Your task to perform on an android device: open app "HBO Max: Stream TV & Movies" (install if not already installed) and enter user name: "faring@outlook.com" and password: "appropriately" Image 0: 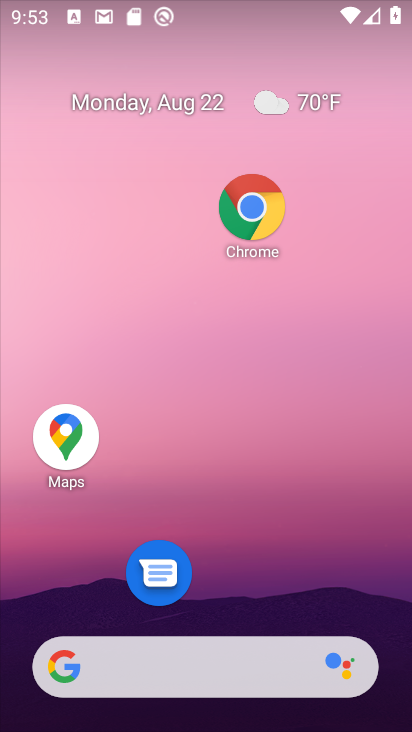
Step 0: drag from (226, 616) to (168, 11)
Your task to perform on an android device: open app "HBO Max: Stream TV & Movies" (install if not already installed) and enter user name: "faring@outlook.com" and password: "appropriately" Image 1: 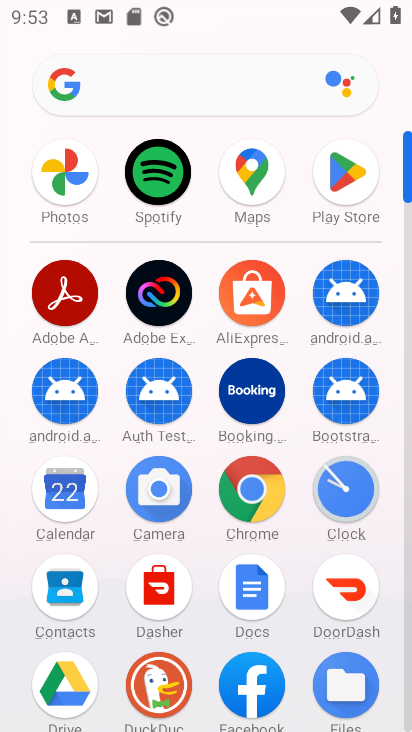
Step 1: click (344, 178)
Your task to perform on an android device: open app "HBO Max: Stream TV & Movies" (install if not already installed) and enter user name: "faring@outlook.com" and password: "appropriately" Image 2: 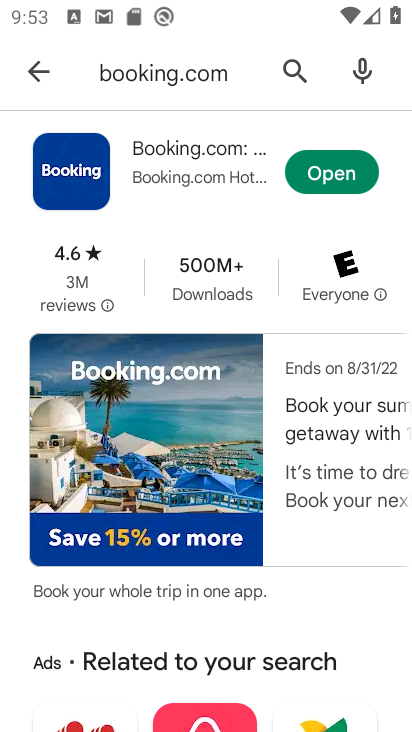
Step 2: click (138, 81)
Your task to perform on an android device: open app "HBO Max: Stream TV & Movies" (install if not already installed) and enter user name: "faring@outlook.com" and password: "appropriately" Image 3: 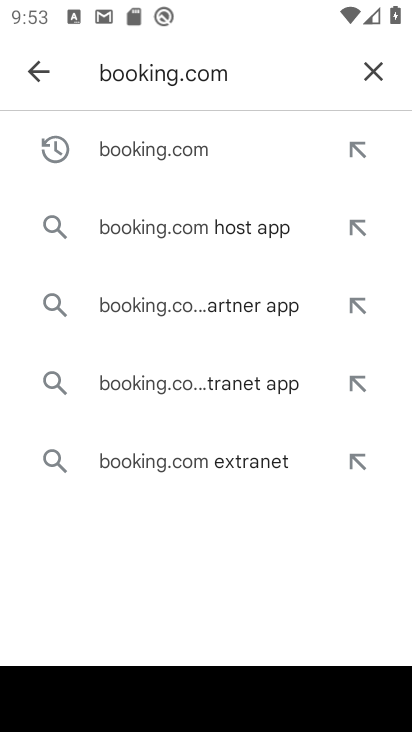
Step 3: click (372, 75)
Your task to perform on an android device: open app "HBO Max: Stream TV & Movies" (install if not already installed) and enter user name: "faring@outlook.com" and password: "appropriately" Image 4: 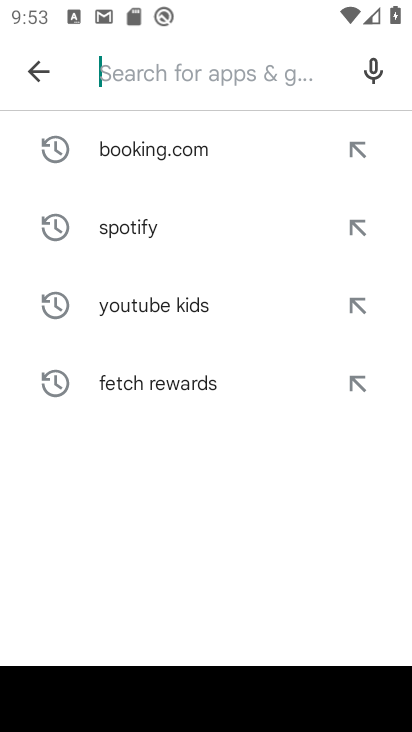
Step 4: type "HBO Max"
Your task to perform on an android device: open app "HBO Max: Stream TV & Movies" (install if not already installed) and enter user name: "faring@outlook.com" and password: "appropriately" Image 5: 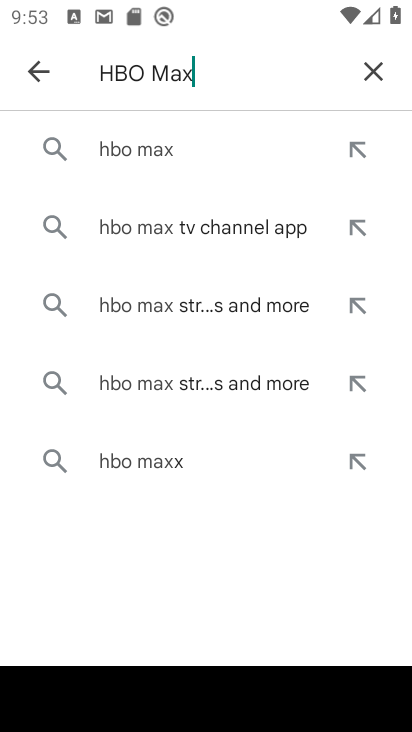
Step 5: click (139, 149)
Your task to perform on an android device: open app "HBO Max: Stream TV & Movies" (install if not already installed) and enter user name: "faring@outlook.com" and password: "appropriately" Image 6: 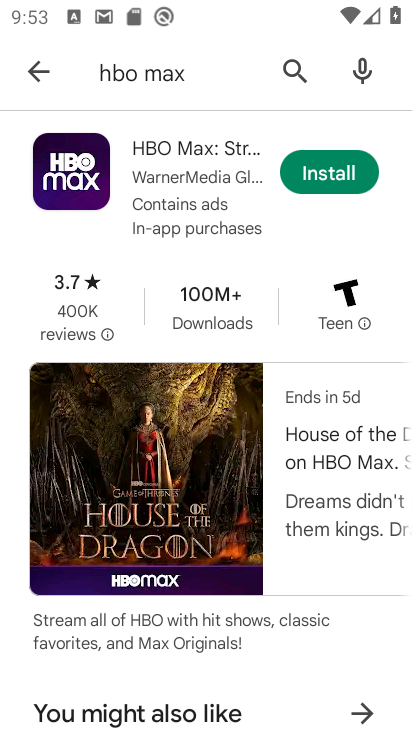
Step 6: click (326, 173)
Your task to perform on an android device: open app "HBO Max: Stream TV & Movies" (install if not already installed) and enter user name: "faring@outlook.com" and password: "appropriately" Image 7: 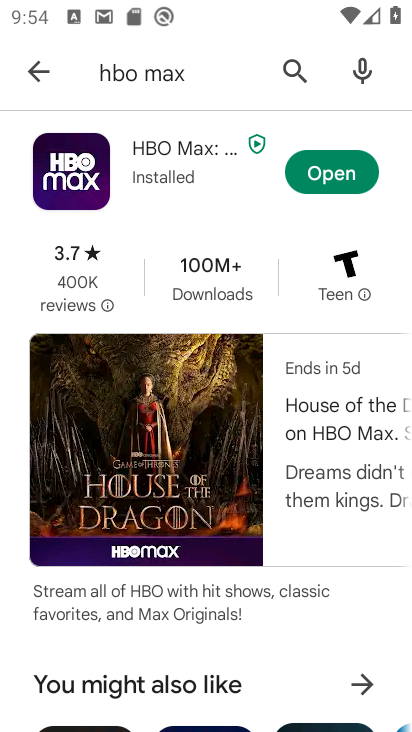
Step 7: click (339, 185)
Your task to perform on an android device: open app "HBO Max: Stream TV & Movies" (install if not already installed) and enter user name: "faring@outlook.com" and password: "appropriately" Image 8: 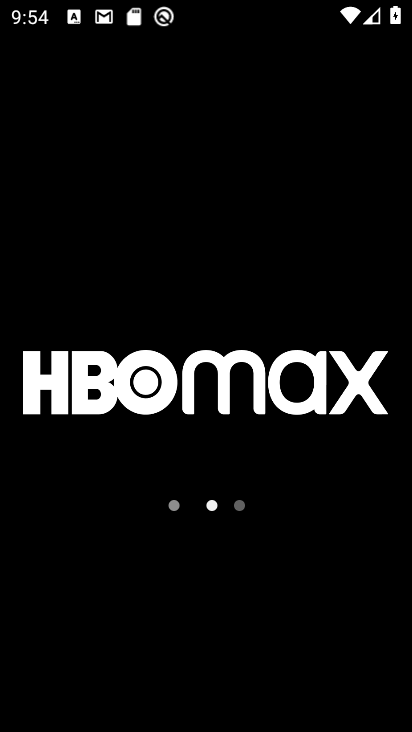
Step 8: click (333, 176)
Your task to perform on an android device: open app "HBO Max: Stream TV & Movies" (install if not already installed) and enter user name: "faring@outlook.com" and password: "appropriately" Image 9: 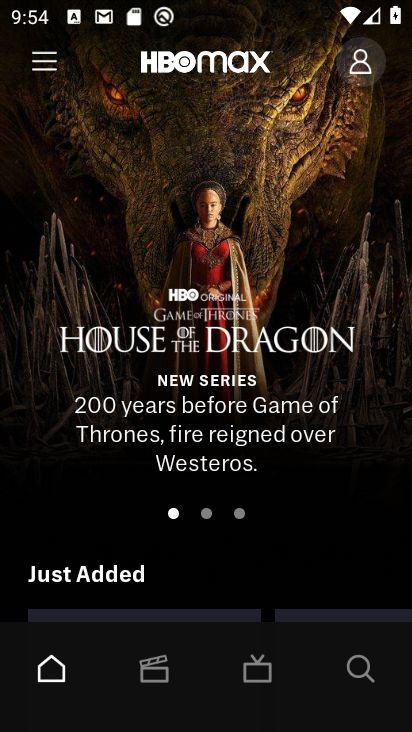
Step 9: click (362, 73)
Your task to perform on an android device: open app "HBO Max: Stream TV & Movies" (install if not already installed) and enter user name: "faring@outlook.com" and password: "appropriately" Image 10: 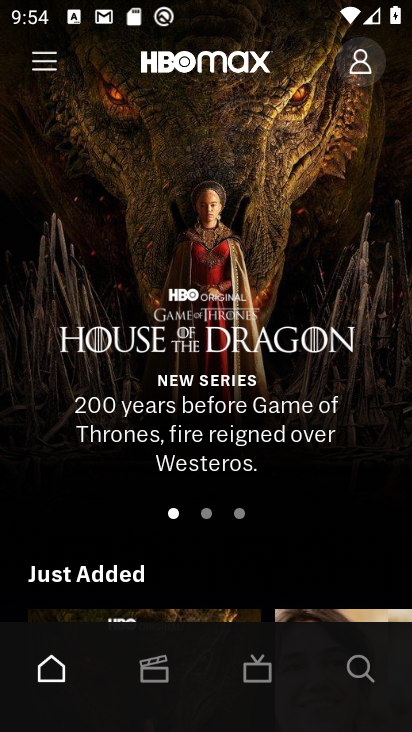
Step 10: click (363, 88)
Your task to perform on an android device: open app "HBO Max: Stream TV & Movies" (install if not already installed) and enter user name: "faring@outlook.com" and password: "appropriately" Image 11: 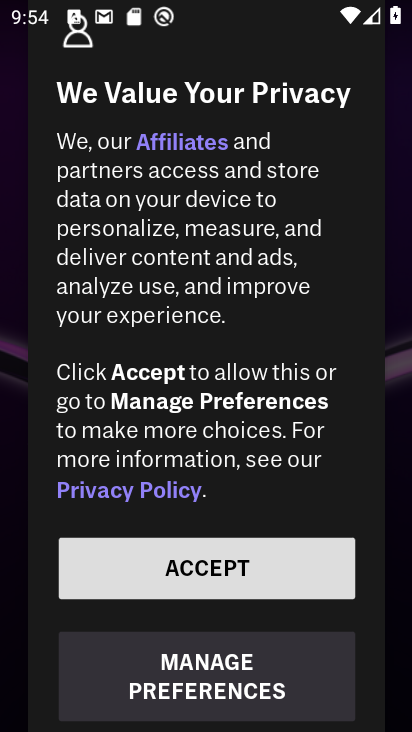
Step 11: click (205, 562)
Your task to perform on an android device: open app "HBO Max: Stream TV & Movies" (install if not already installed) and enter user name: "faring@outlook.com" and password: "appropriately" Image 12: 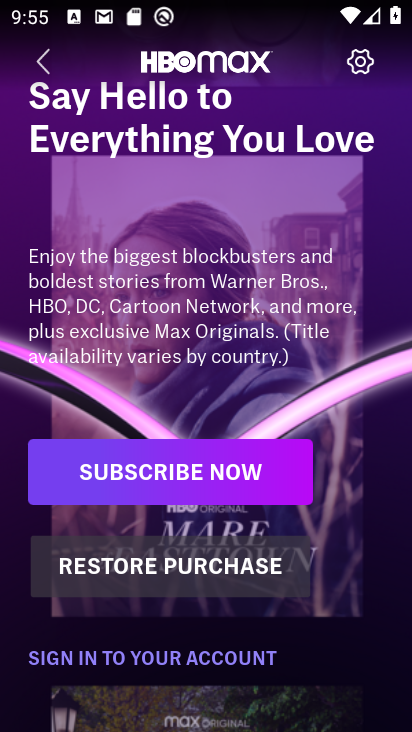
Step 12: drag from (187, 624) to (206, 498)
Your task to perform on an android device: open app "HBO Max: Stream TV & Movies" (install if not already installed) and enter user name: "faring@outlook.com" and password: "appropriately" Image 13: 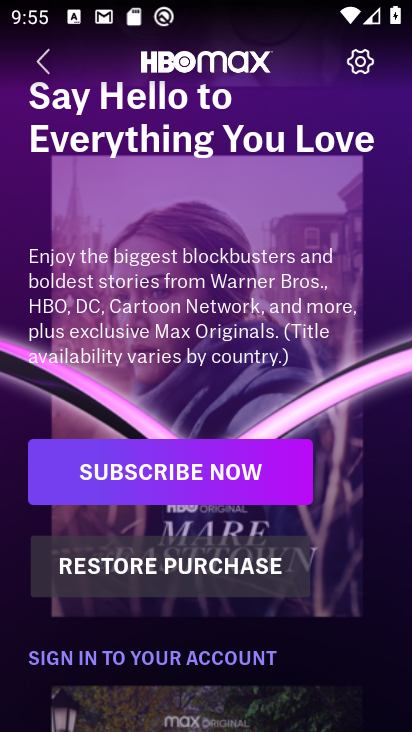
Step 13: click (145, 650)
Your task to perform on an android device: open app "HBO Max: Stream TV & Movies" (install if not already installed) and enter user name: "faring@outlook.com" and password: "appropriately" Image 14: 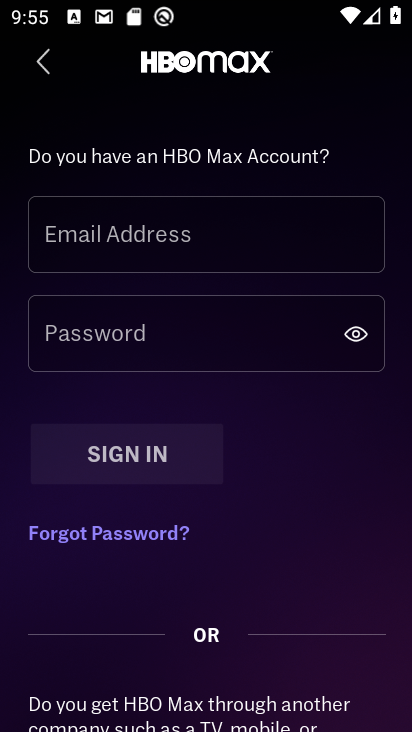
Step 14: click (182, 243)
Your task to perform on an android device: open app "HBO Max: Stream TV & Movies" (install if not already installed) and enter user name: "faring@outlook.com" and password: "appropriately" Image 15: 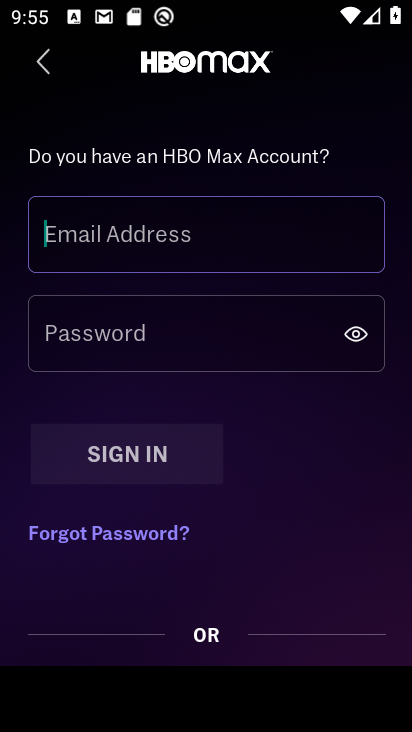
Step 15: type "faring@outlook.com"
Your task to perform on an android device: open app "HBO Max: Stream TV & Movies" (install if not already installed) and enter user name: "faring@outlook.com" and password: "appropriately" Image 16: 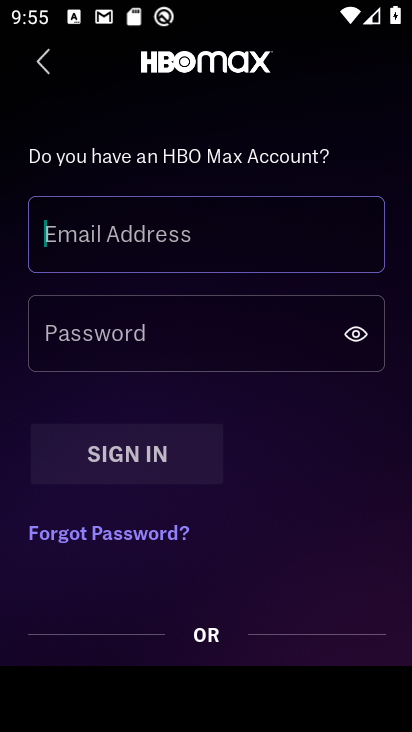
Step 16: click (181, 347)
Your task to perform on an android device: open app "HBO Max: Stream TV & Movies" (install if not already installed) and enter user name: "faring@outlook.com" and password: "appropriately" Image 17: 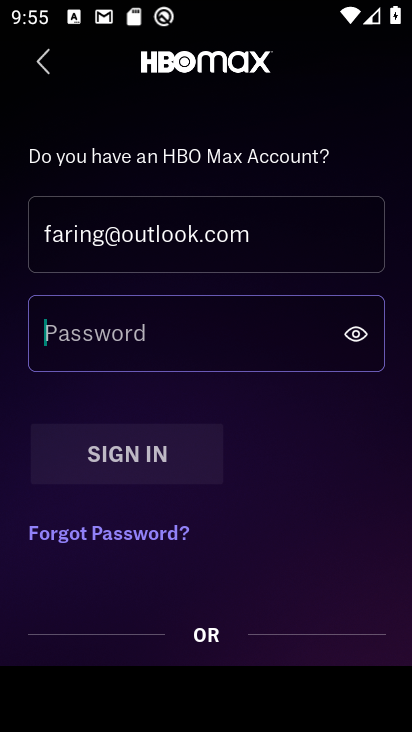
Step 17: type "appropriately"
Your task to perform on an android device: open app "HBO Max: Stream TV & Movies" (install if not already installed) and enter user name: "faring@outlook.com" and password: "appropriately" Image 18: 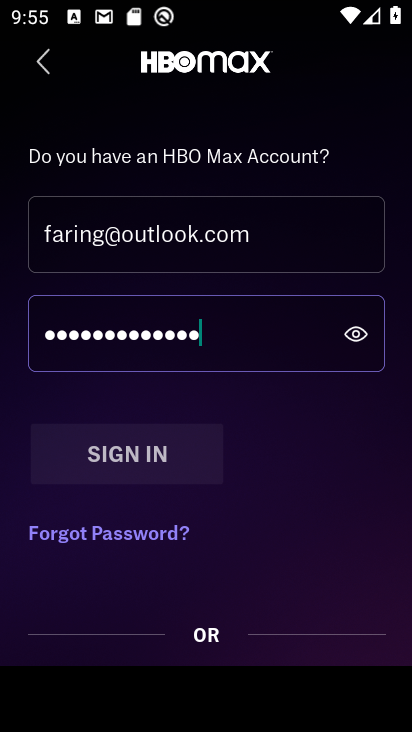
Step 18: click (138, 450)
Your task to perform on an android device: open app "HBO Max: Stream TV & Movies" (install if not already installed) and enter user name: "faring@outlook.com" and password: "appropriately" Image 19: 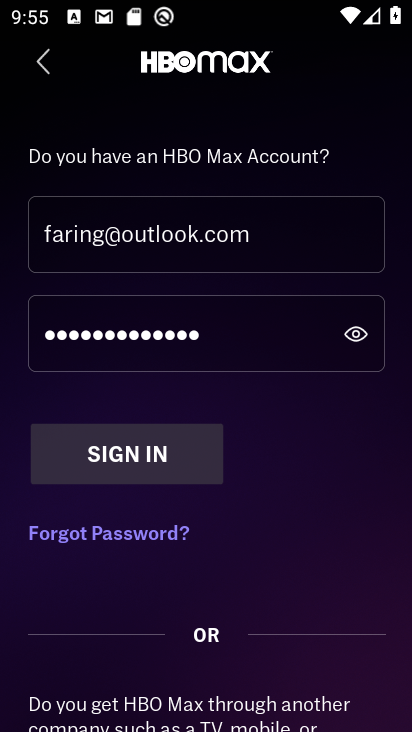
Step 19: task complete